Your task to perform on an android device: Open privacy settings Image 0: 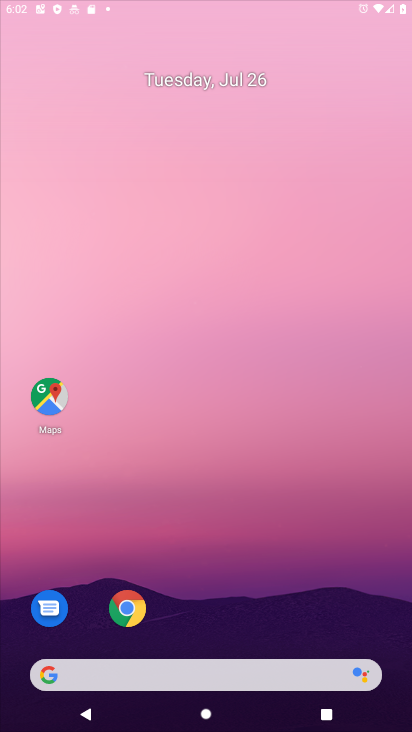
Step 0: press home button
Your task to perform on an android device: Open privacy settings Image 1: 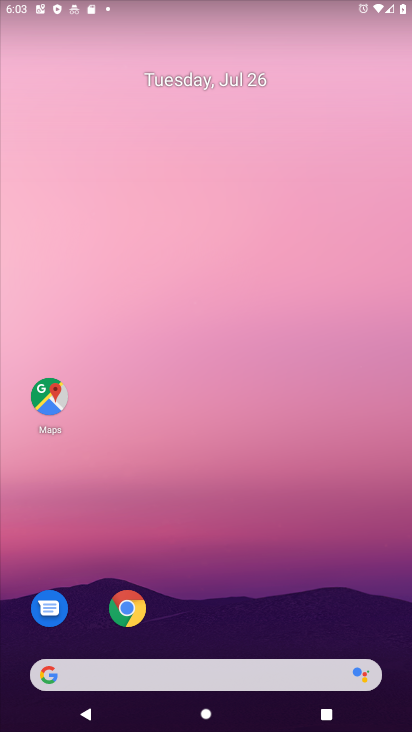
Step 1: drag from (229, 632) to (183, 1)
Your task to perform on an android device: Open privacy settings Image 2: 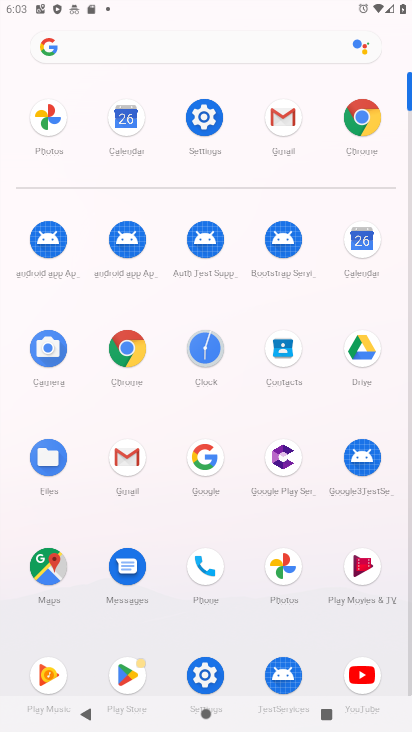
Step 2: click (192, 117)
Your task to perform on an android device: Open privacy settings Image 3: 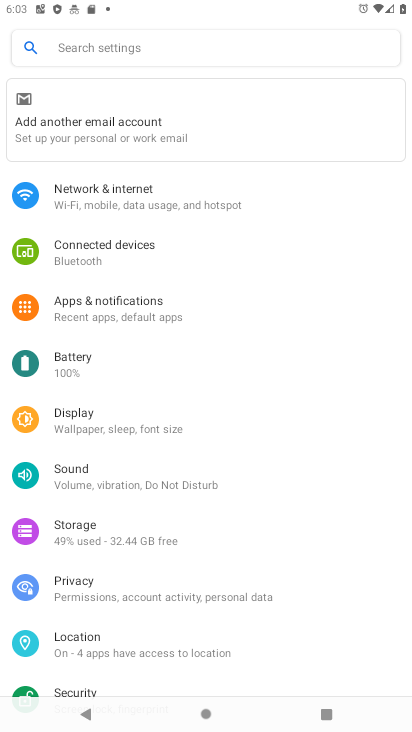
Step 3: click (90, 609)
Your task to perform on an android device: Open privacy settings Image 4: 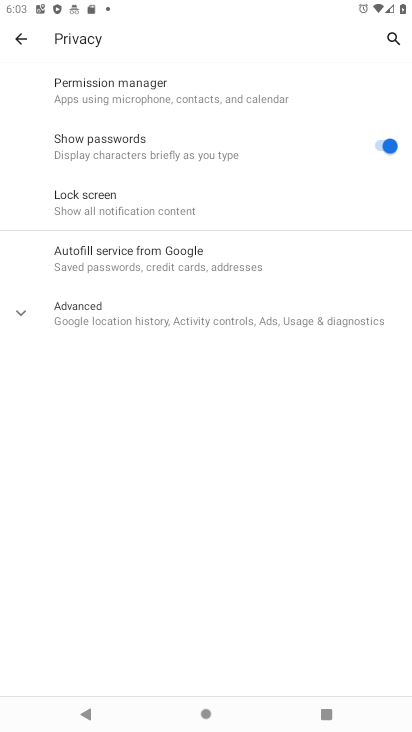
Step 4: task complete